Your task to perform on an android device: Go to CNN.com Image 0: 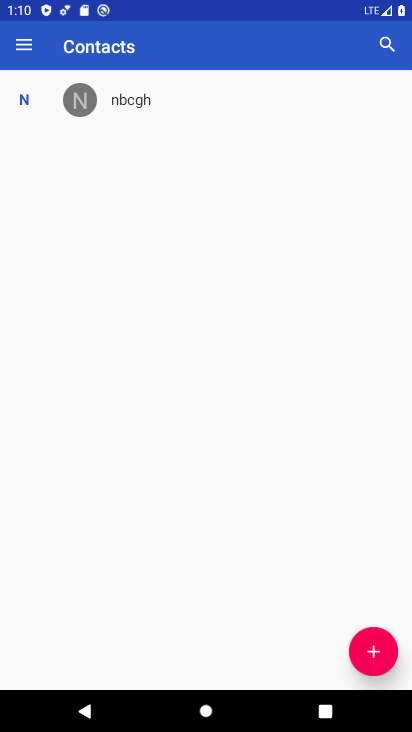
Step 0: press home button
Your task to perform on an android device: Go to CNN.com Image 1: 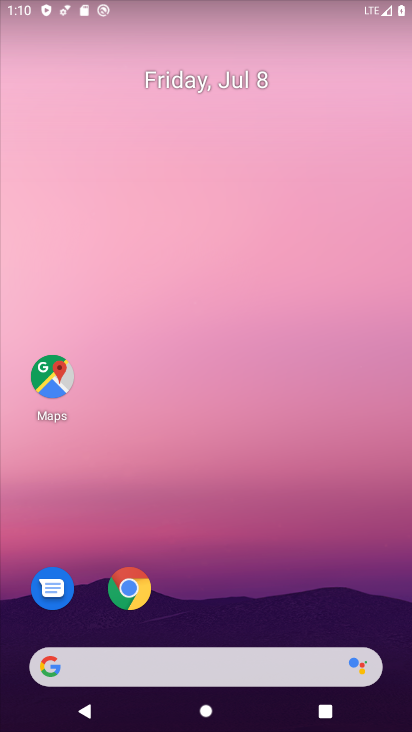
Step 1: drag from (264, 609) to (219, 104)
Your task to perform on an android device: Go to CNN.com Image 2: 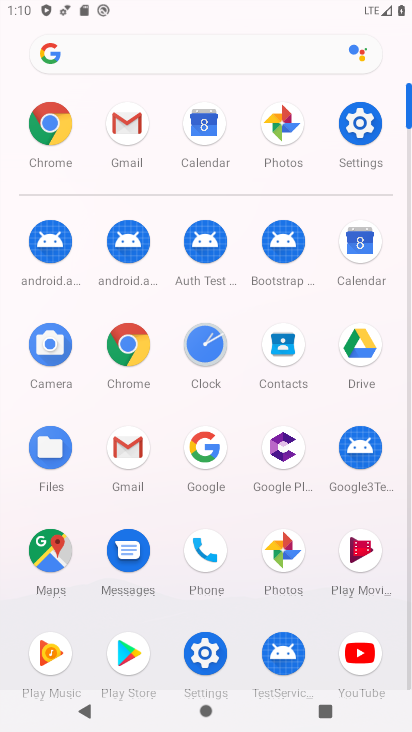
Step 2: click (120, 359)
Your task to perform on an android device: Go to CNN.com Image 3: 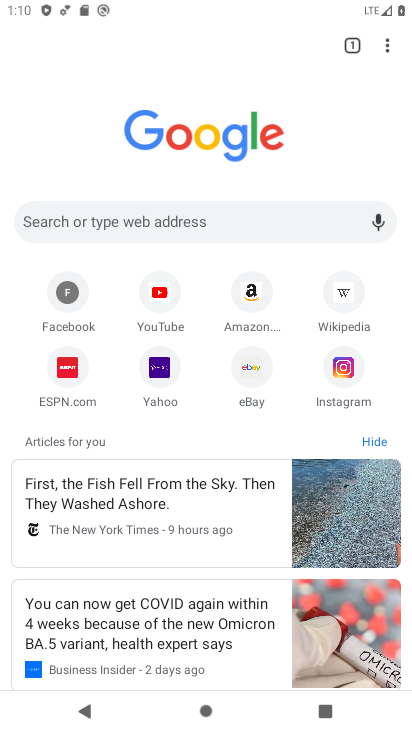
Step 3: click (164, 220)
Your task to perform on an android device: Go to CNN.com Image 4: 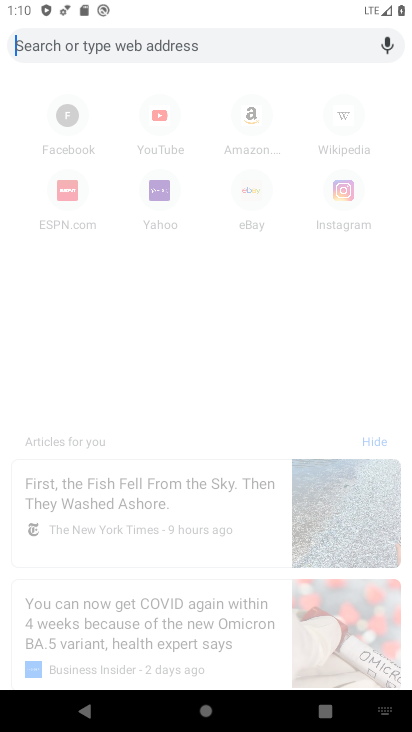
Step 4: type "CNN.com"
Your task to perform on an android device: Go to CNN.com Image 5: 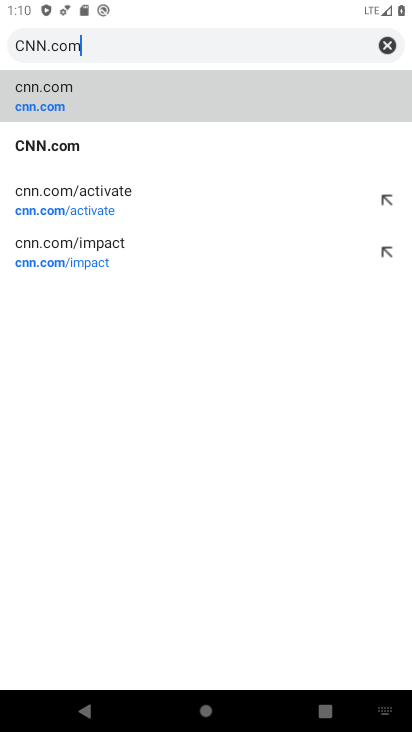
Step 5: click (111, 88)
Your task to perform on an android device: Go to CNN.com Image 6: 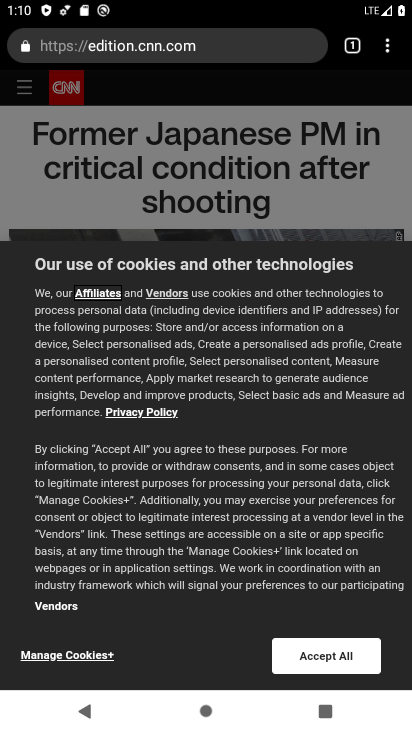
Step 6: task complete